Your task to perform on an android device: Go to CNN.com Image 0: 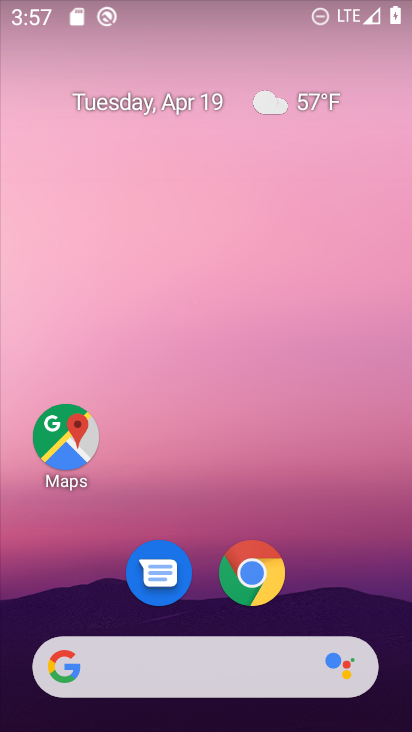
Step 0: click (256, 565)
Your task to perform on an android device: Go to CNN.com Image 1: 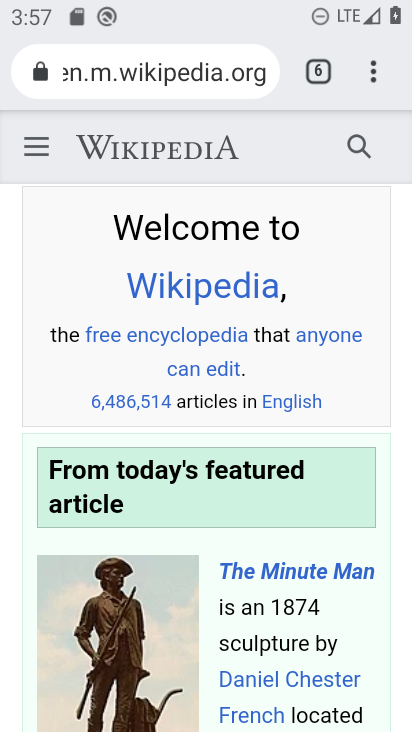
Step 1: click (201, 80)
Your task to perform on an android device: Go to CNN.com Image 2: 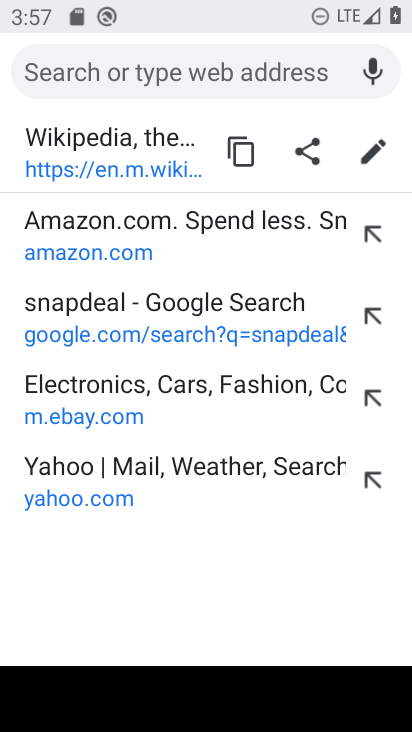
Step 2: type "cnn.com"
Your task to perform on an android device: Go to CNN.com Image 3: 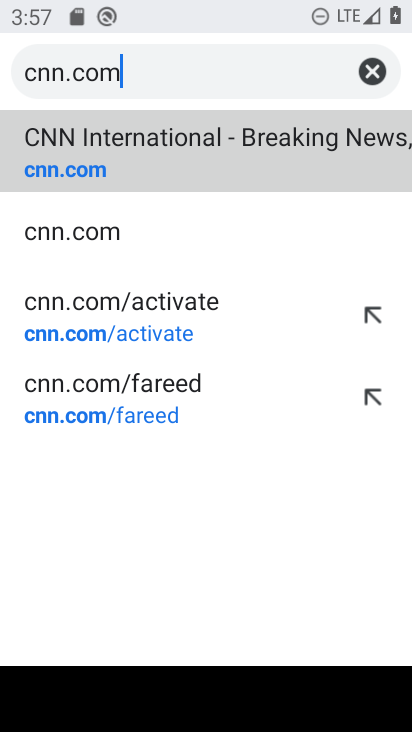
Step 3: click (68, 230)
Your task to perform on an android device: Go to CNN.com Image 4: 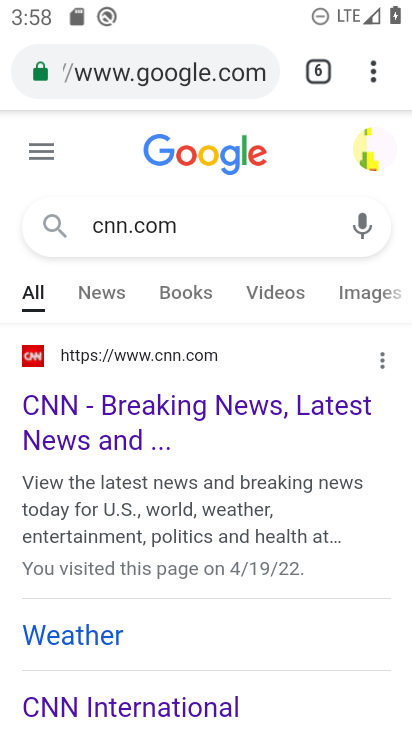
Step 4: click (37, 366)
Your task to perform on an android device: Go to CNN.com Image 5: 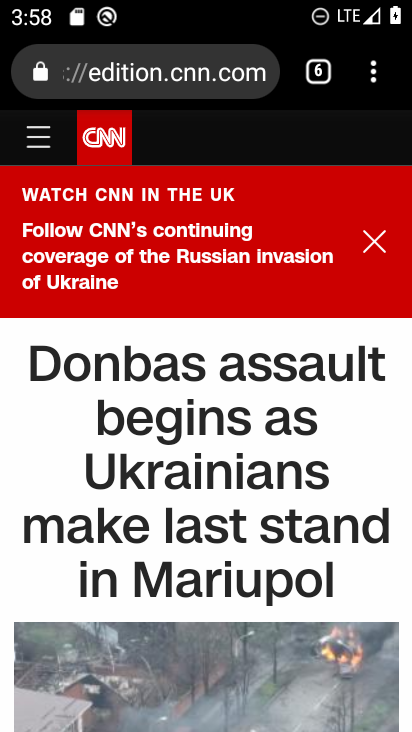
Step 5: task complete